Your task to perform on an android device: Open Reddit.com Image 0: 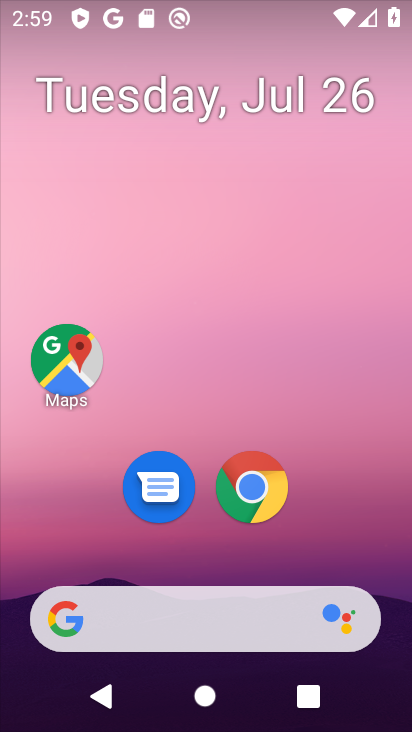
Step 0: click (252, 488)
Your task to perform on an android device: Open Reddit.com Image 1: 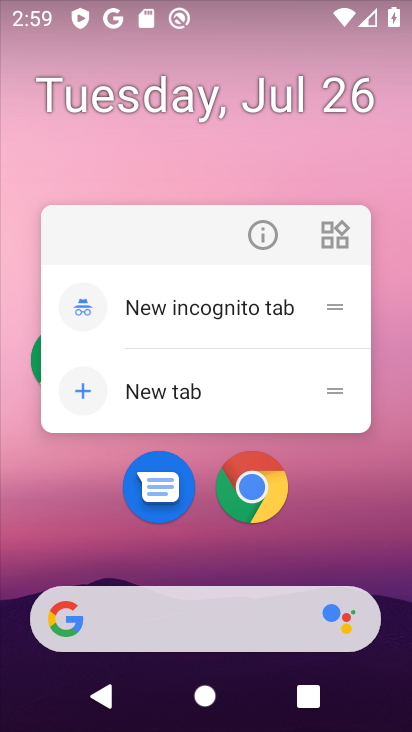
Step 1: click (252, 488)
Your task to perform on an android device: Open Reddit.com Image 2: 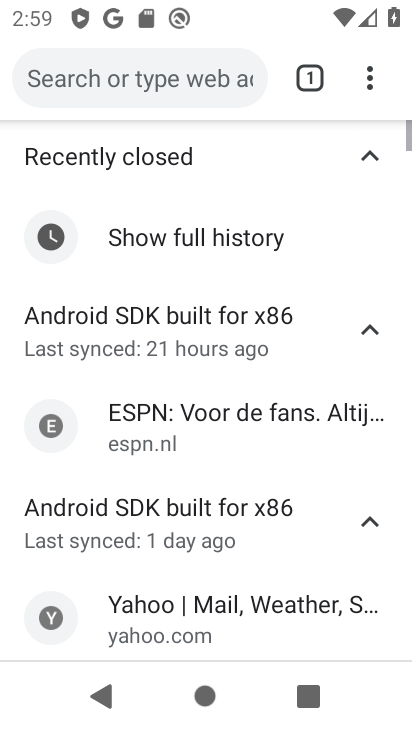
Step 2: click (306, 82)
Your task to perform on an android device: Open Reddit.com Image 3: 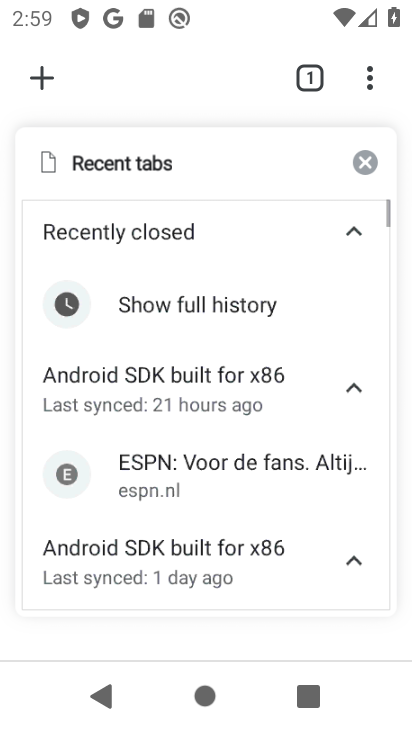
Step 3: click (38, 88)
Your task to perform on an android device: Open Reddit.com Image 4: 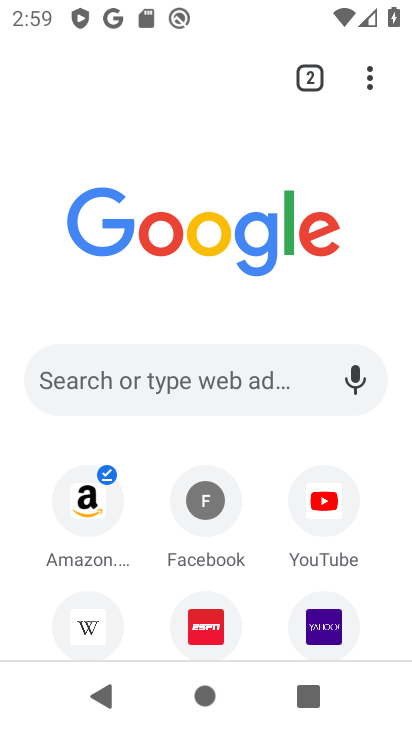
Step 4: click (133, 376)
Your task to perform on an android device: Open Reddit.com Image 5: 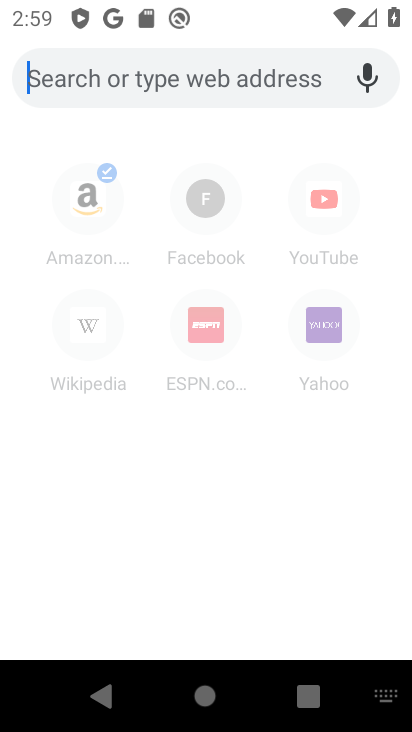
Step 5: type "reddit.com"
Your task to perform on an android device: Open Reddit.com Image 6: 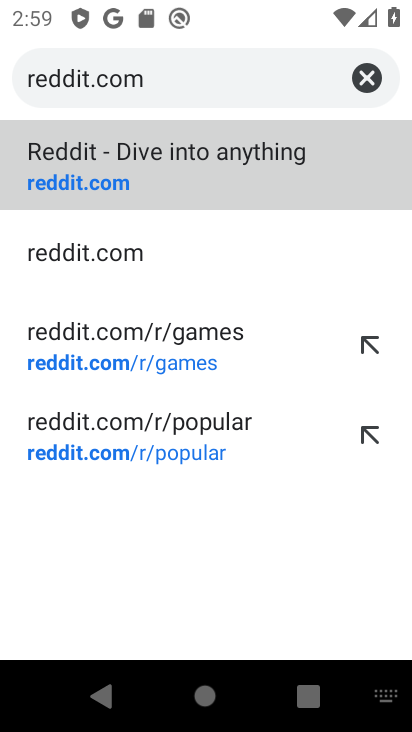
Step 6: click (91, 150)
Your task to perform on an android device: Open Reddit.com Image 7: 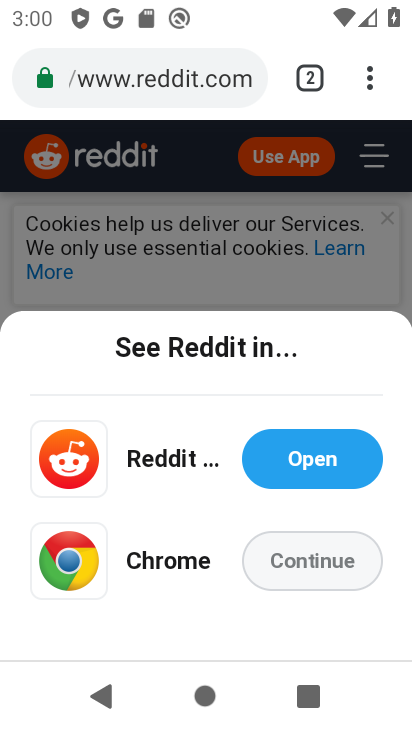
Step 7: task complete